Your task to perform on an android device: Open network settings Image 0: 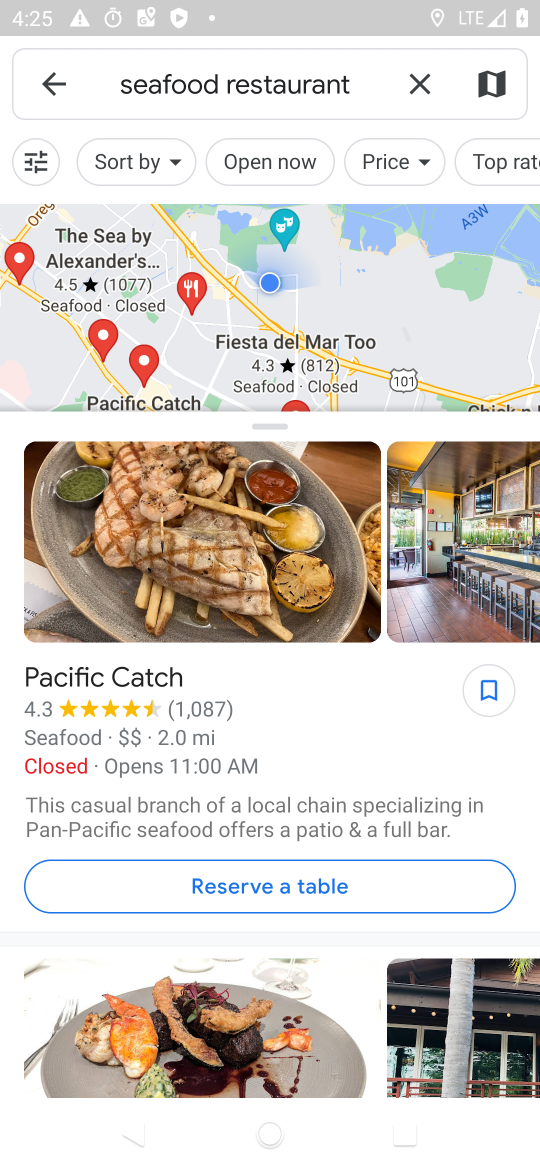
Step 0: drag from (314, 18) to (373, 581)
Your task to perform on an android device: Open network settings Image 1: 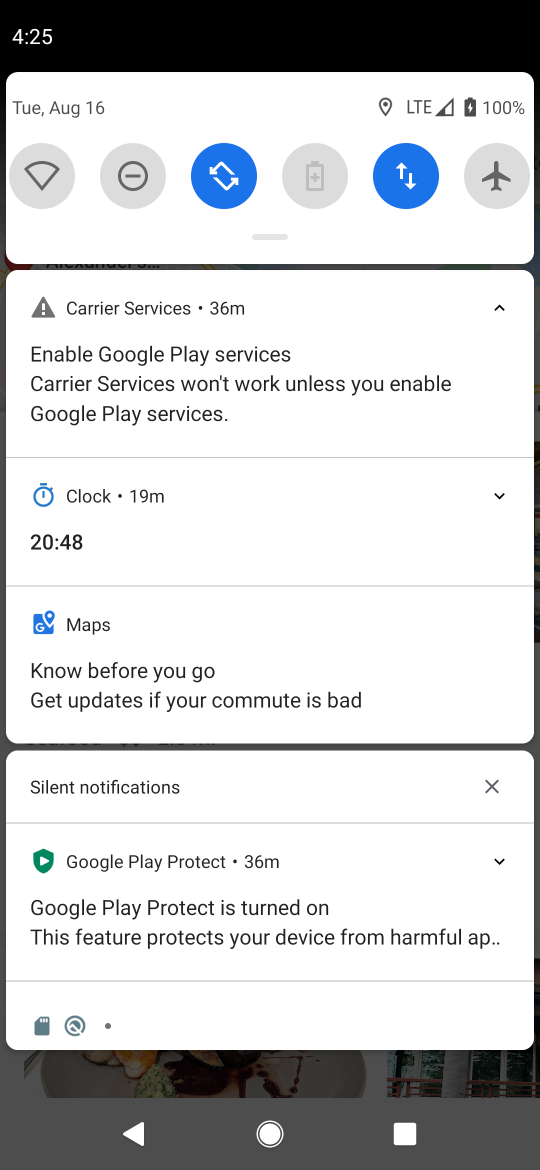
Step 1: click (412, 182)
Your task to perform on an android device: Open network settings Image 2: 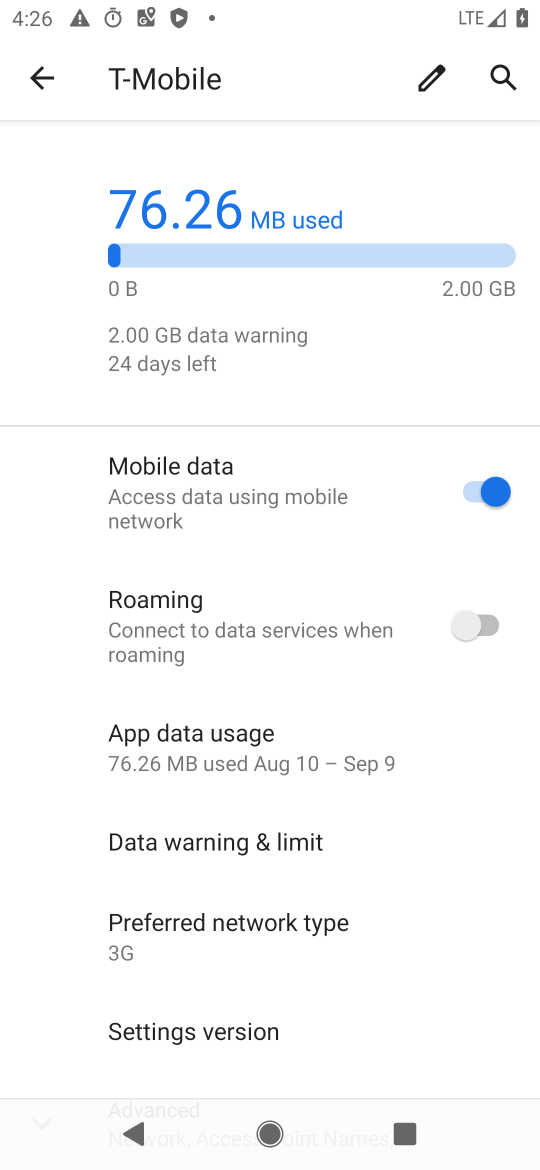
Step 2: task complete